Your task to perform on an android device: Search for macbook pro 15 inch on target, select the first entry, add it to the cart, then select checkout. Image 0: 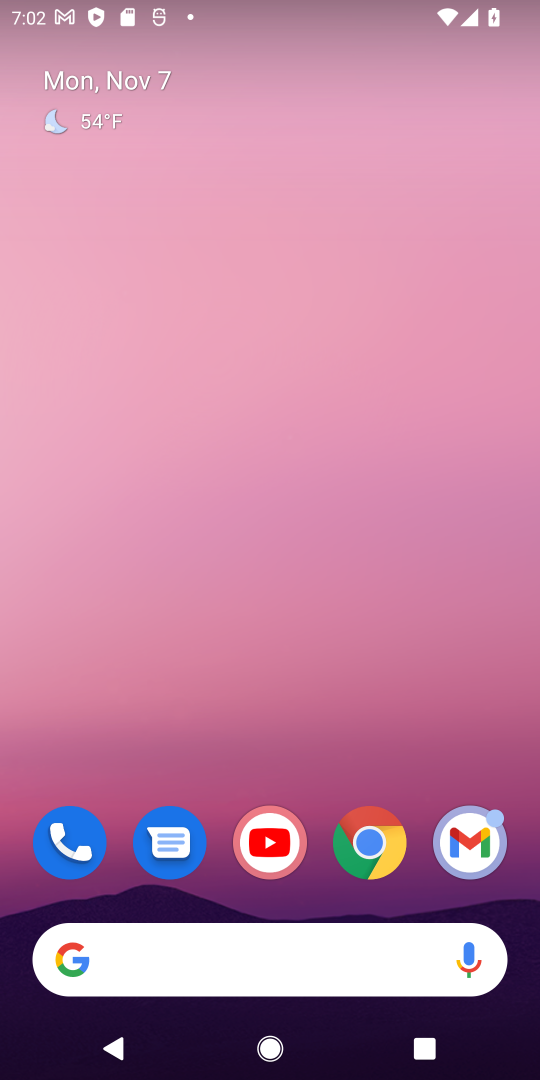
Step 0: click (368, 847)
Your task to perform on an android device: Search for macbook pro 15 inch on target, select the first entry, add it to the cart, then select checkout. Image 1: 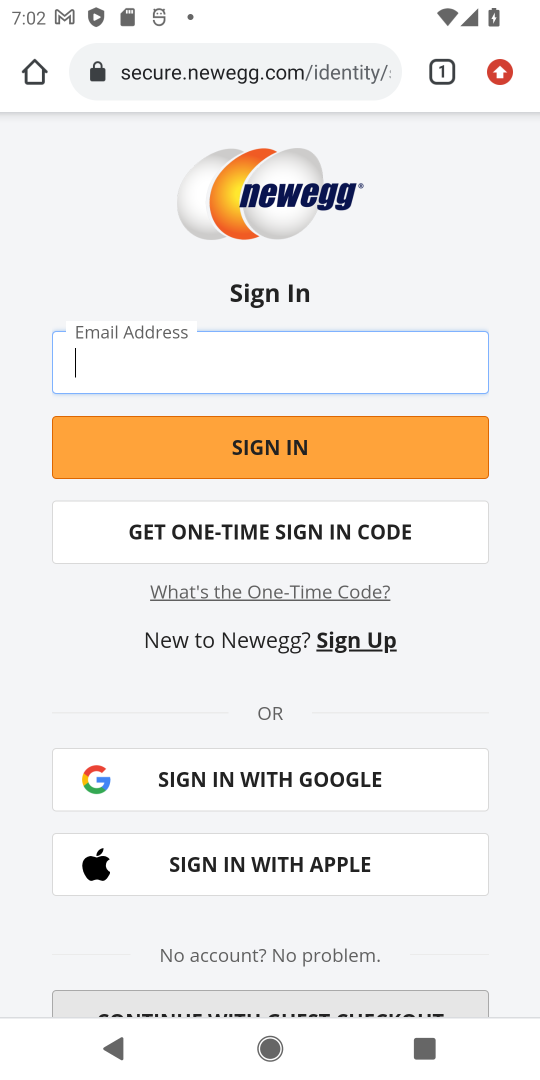
Step 1: click (275, 73)
Your task to perform on an android device: Search for macbook pro 15 inch on target, select the first entry, add it to the cart, then select checkout. Image 2: 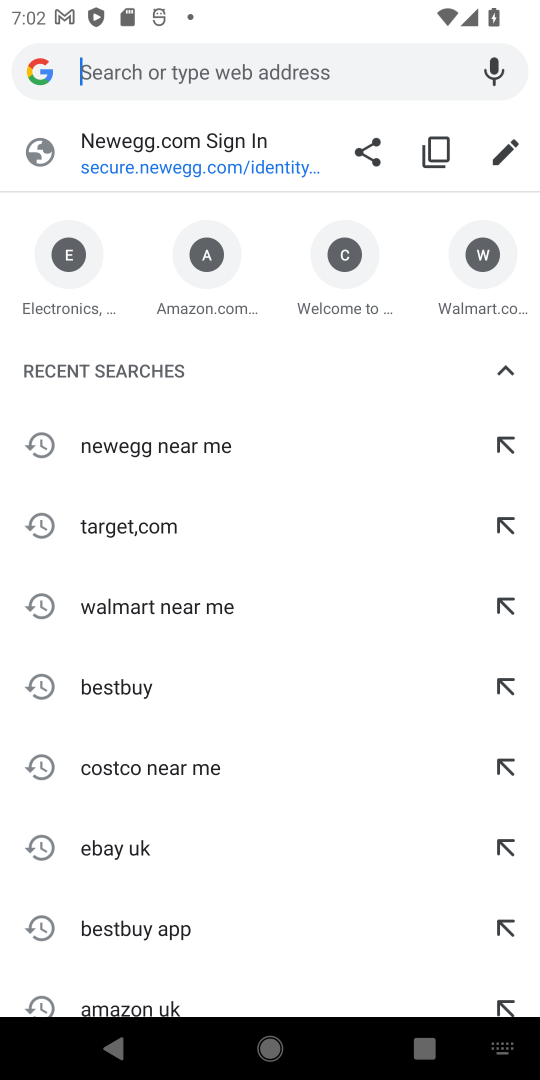
Step 2: drag from (236, 922) to (380, 871)
Your task to perform on an android device: Search for macbook pro 15 inch on target, select the first entry, add it to the cart, then select checkout. Image 3: 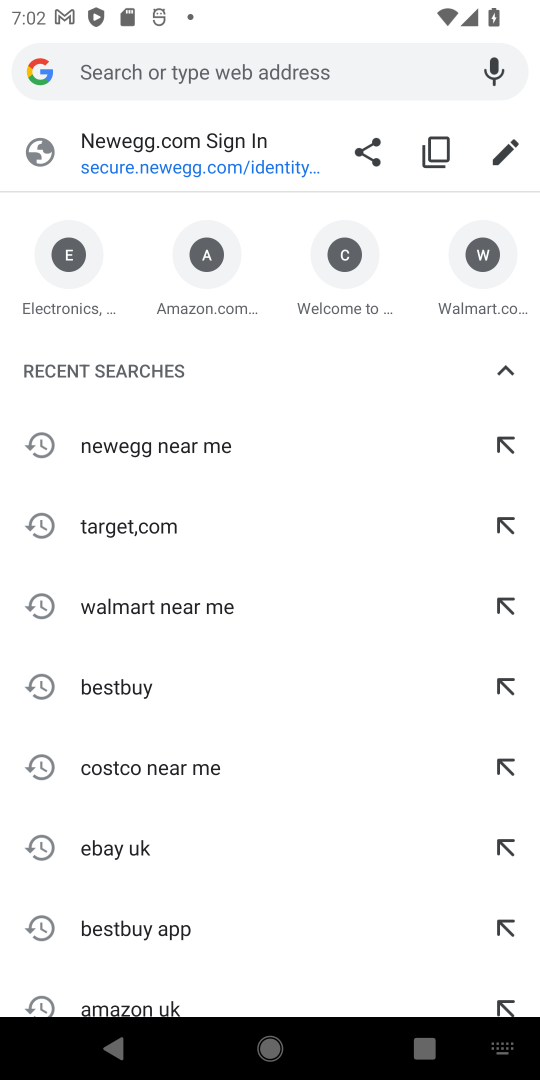
Step 3: drag from (401, 317) to (0, 309)
Your task to perform on an android device: Search for macbook pro 15 inch on target, select the first entry, add it to the cart, then select checkout. Image 4: 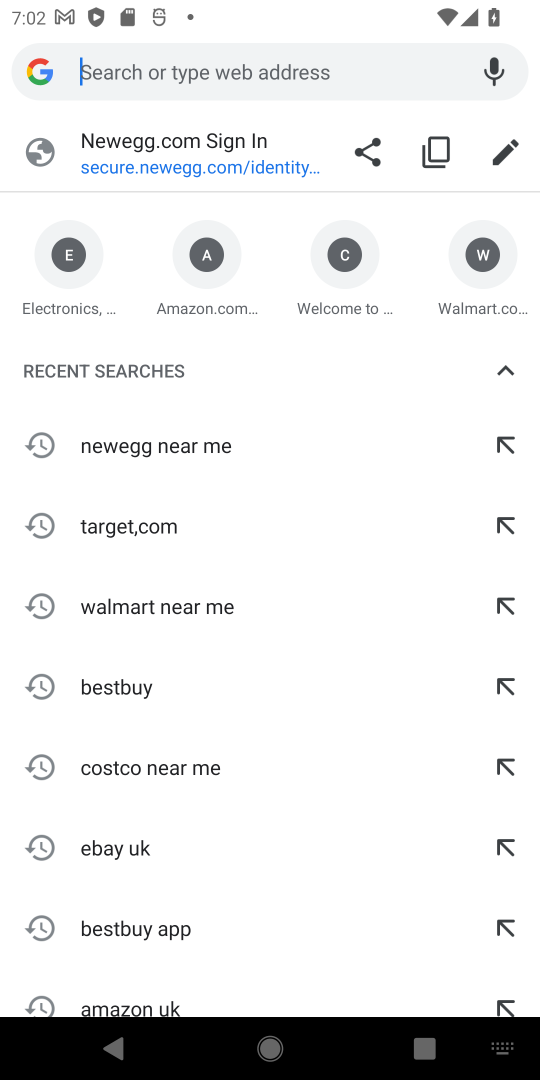
Step 4: drag from (486, 273) to (0, 290)
Your task to perform on an android device: Search for macbook pro 15 inch on target, select the first entry, add it to the cart, then select checkout. Image 5: 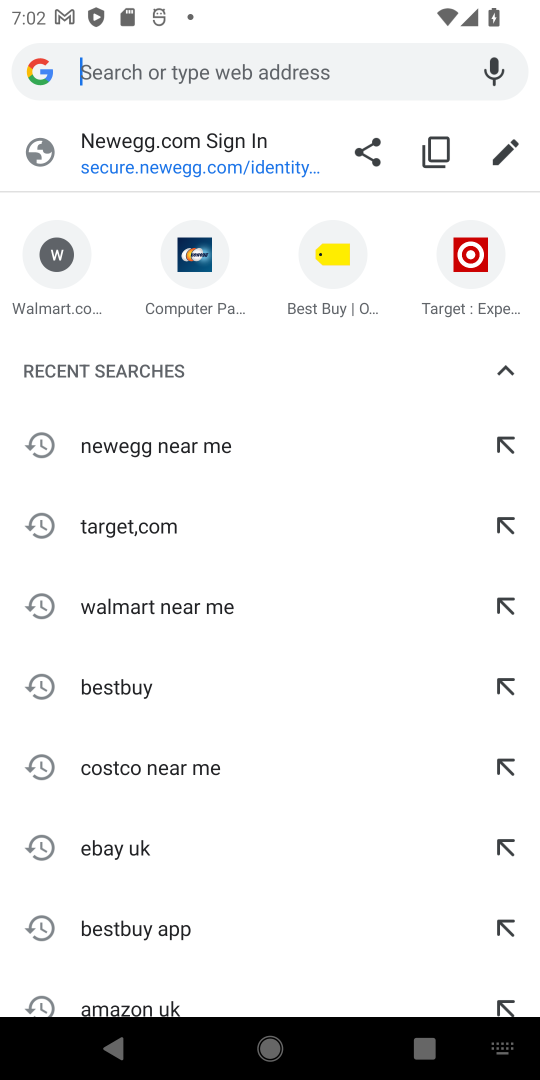
Step 5: drag from (496, 284) to (163, 279)
Your task to perform on an android device: Search for macbook pro 15 inch on target, select the first entry, add it to the cart, then select checkout. Image 6: 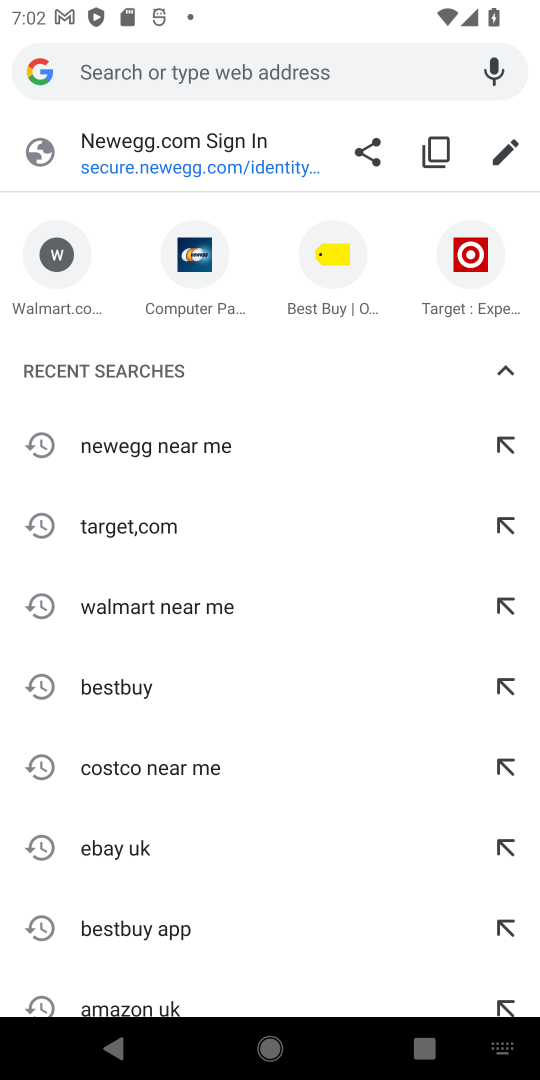
Step 6: click (450, 301)
Your task to perform on an android device: Search for macbook pro 15 inch on target, select the first entry, add it to the cart, then select checkout. Image 7: 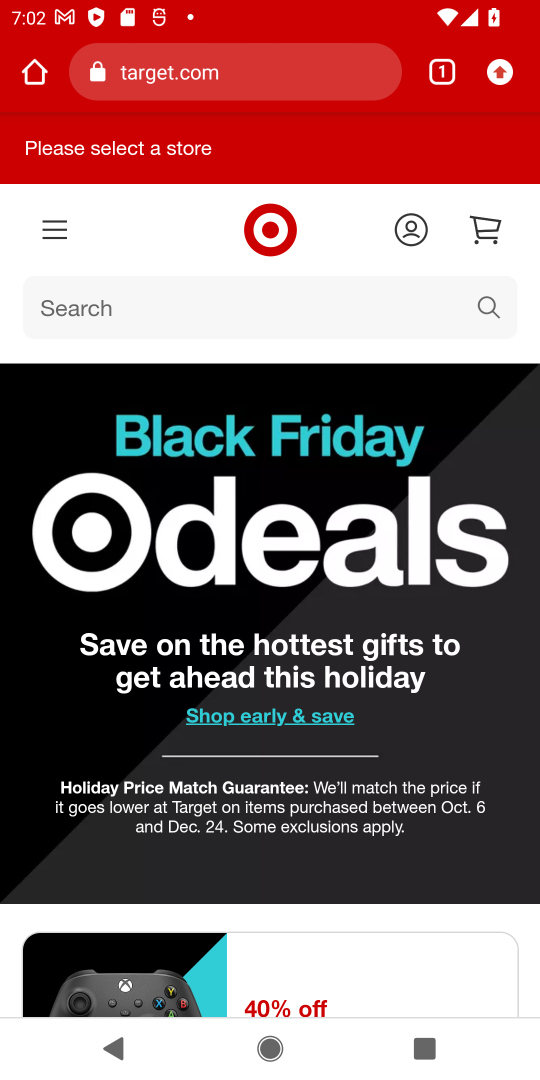
Step 7: click (63, 297)
Your task to perform on an android device: Search for macbook pro 15 inch on target, select the first entry, add it to the cart, then select checkout. Image 8: 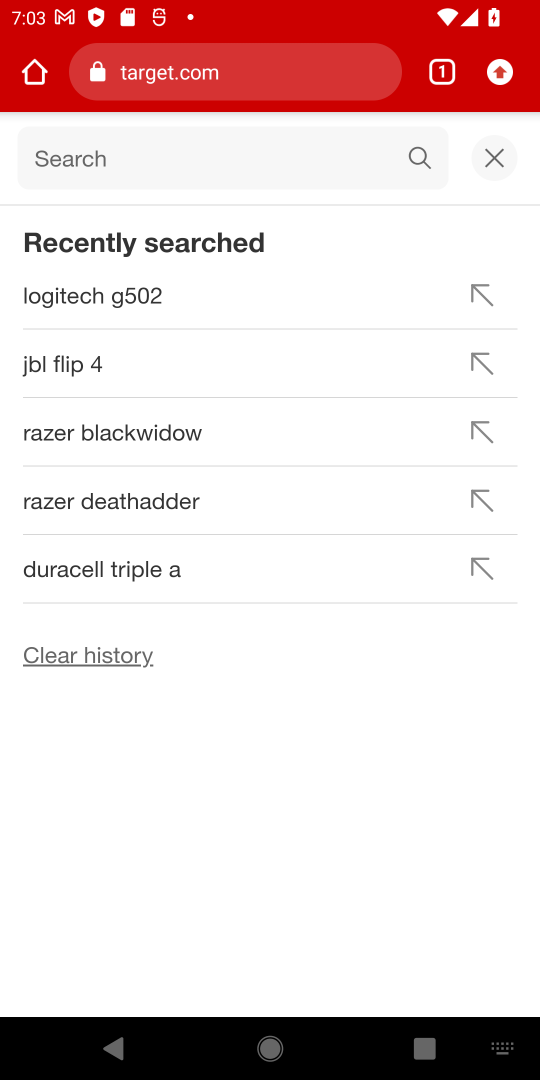
Step 8: type "macbook pro 15 inch "
Your task to perform on an android device: Search for macbook pro 15 inch on target, select the first entry, add it to the cart, then select checkout. Image 9: 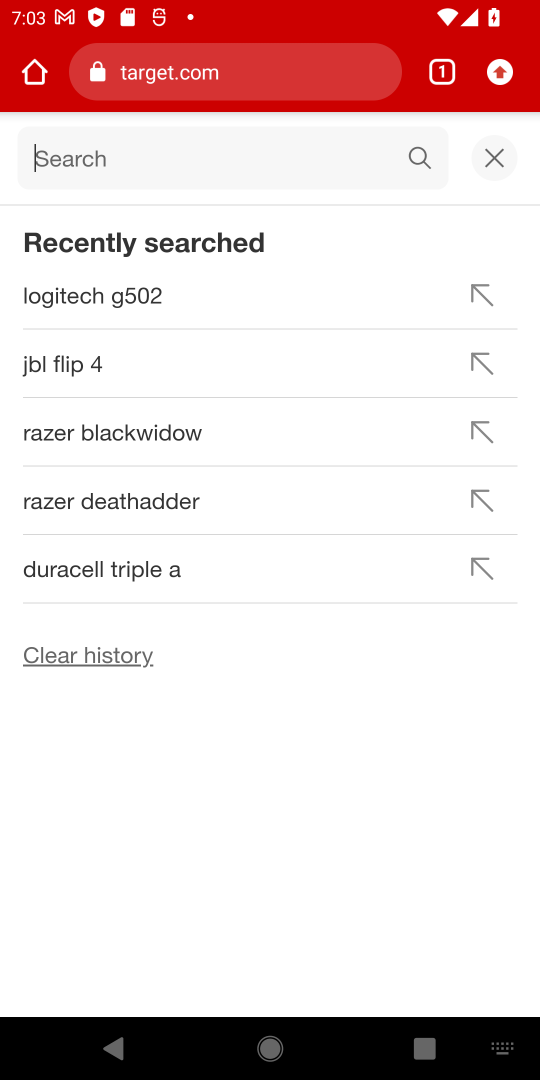
Step 9: press enter
Your task to perform on an android device: Search for macbook pro 15 inch on target, select the first entry, add it to the cart, then select checkout. Image 10: 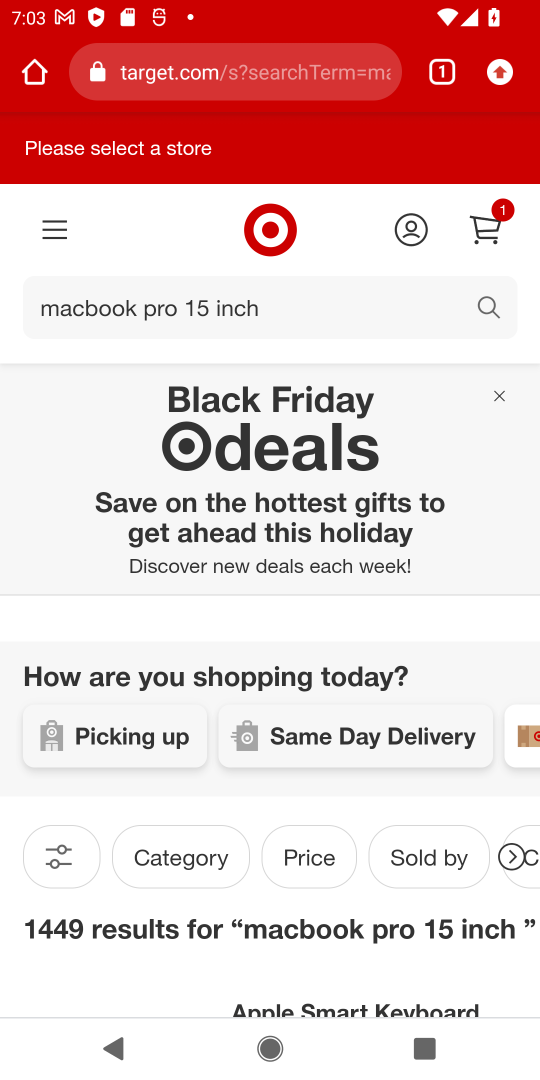
Step 10: task complete